Your task to perform on an android device: find which apps use the phone's location Image 0: 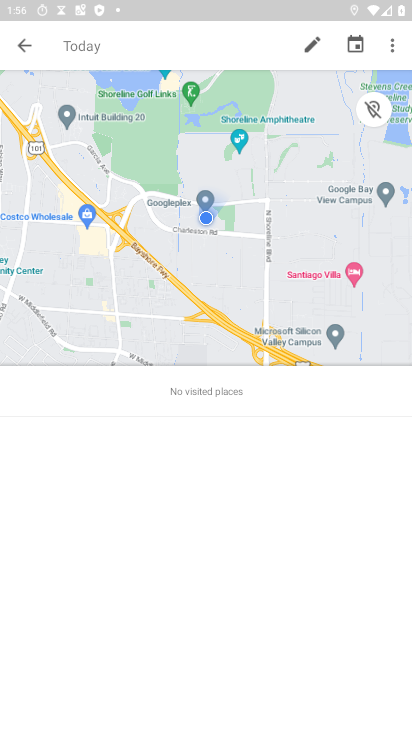
Step 0: press home button
Your task to perform on an android device: find which apps use the phone's location Image 1: 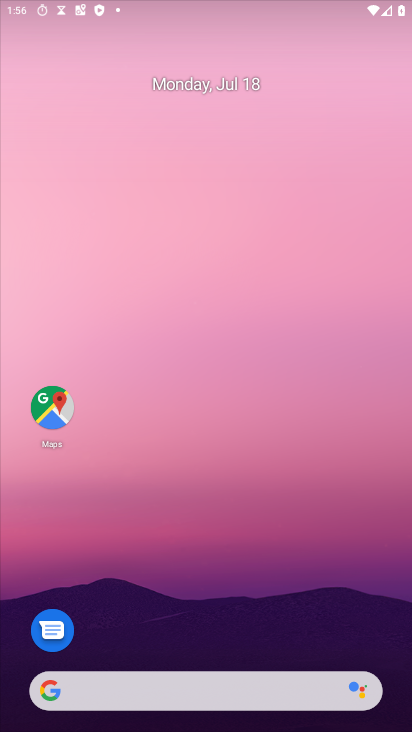
Step 1: drag from (311, 669) to (351, 19)
Your task to perform on an android device: find which apps use the phone's location Image 2: 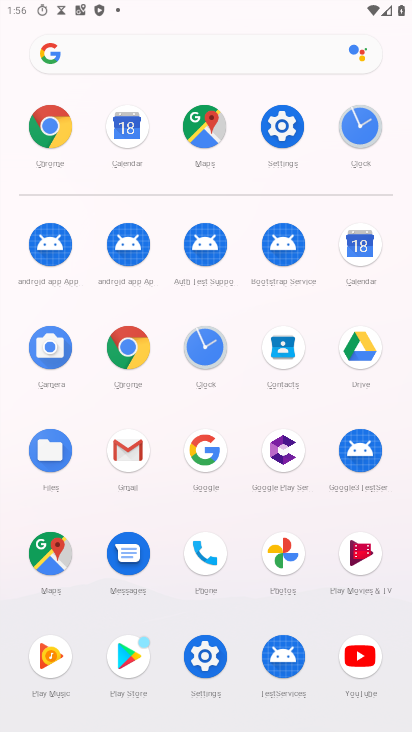
Step 2: click (293, 124)
Your task to perform on an android device: find which apps use the phone's location Image 3: 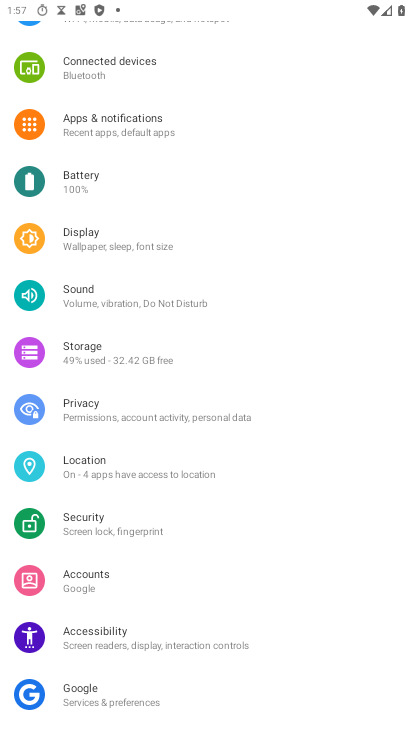
Step 3: click (135, 469)
Your task to perform on an android device: find which apps use the phone's location Image 4: 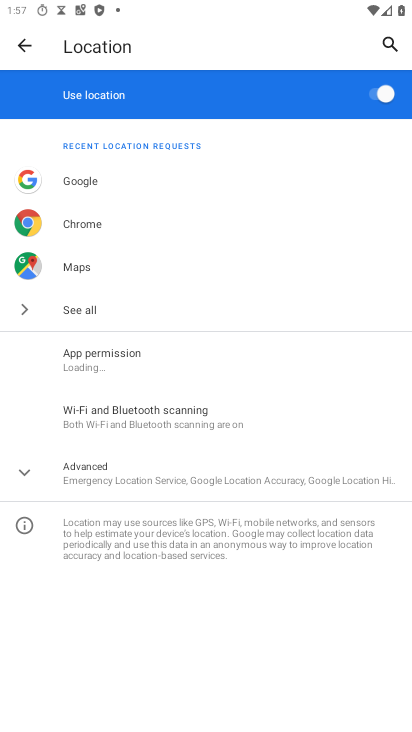
Step 4: click (125, 364)
Your task to perform on an android device: find which apps use the phone's location Image 5: 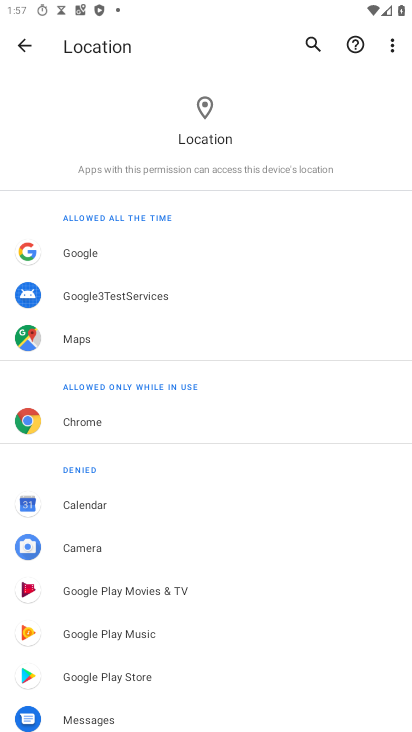
Step 5: task complete